Your task to perform on an android device: Show me popular games on the Play Store Image 0: 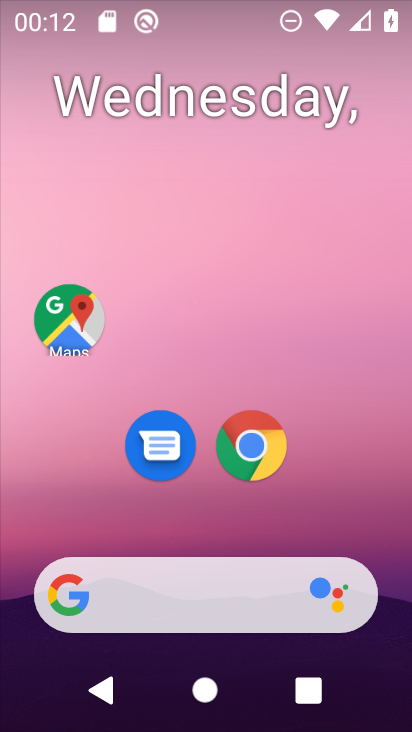
Step 0: drag from (196, 503) to (264, 70)
Your task to perform on an android device: Show me popular games on the Play Store Image 1: 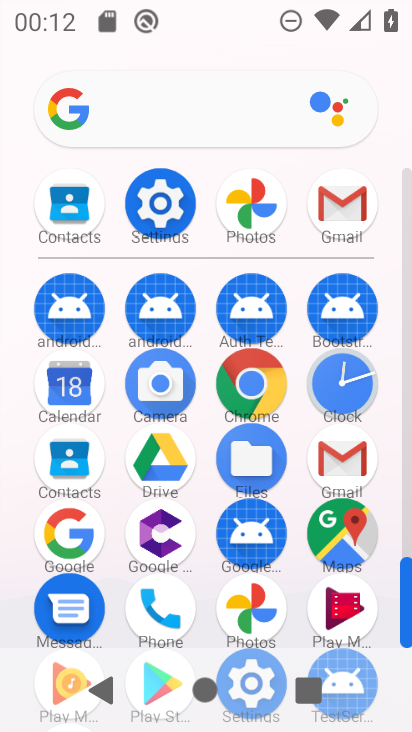
Step 1: drag from (289, 576) to (349, 268)
Your task to perform on an android device: Show me popular games on the Play Store Image 2: 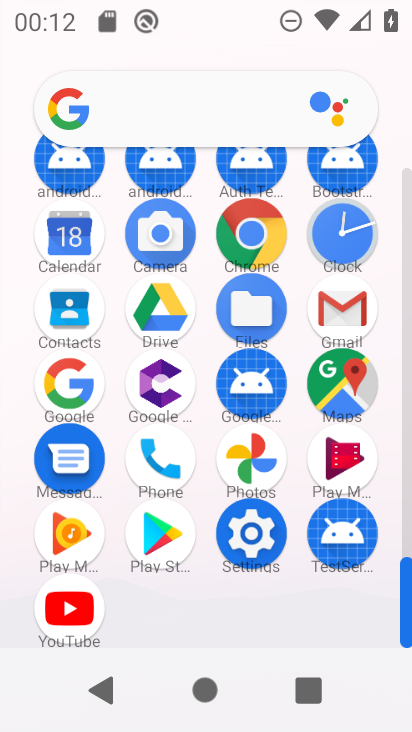
Step 2: click (153, 531)
Your task to perform on an android device: Show me popular games on the Play Store Image 3: 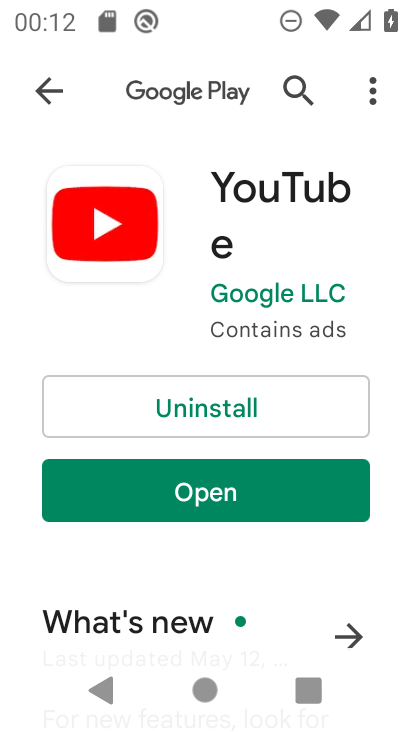
Step 3: click (45, 93)
Your task to perform on an android device: Show me popular games on the Play Store Image 4: 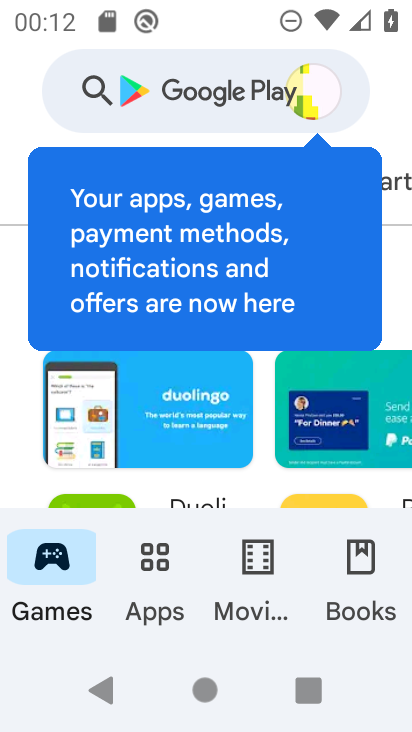
Step 4: click (49, 565)
Your task to perform on an android device: Show me popular games on the Play Store Image 5: 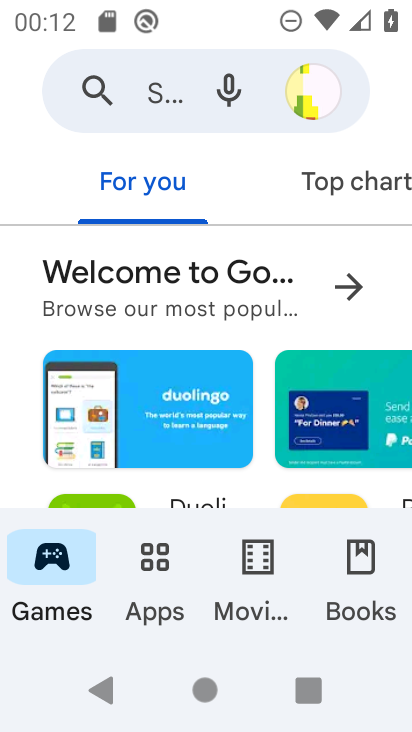
Step 5: click (312, 196)
Your task to perform on an android device: Show me popular games on the Play Store Image 6: 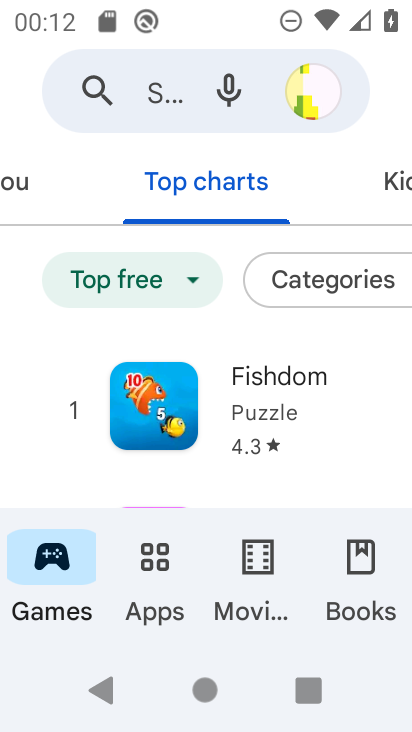
Step 6: task complete